Your task to perform on an android device: check data usage Image 0: 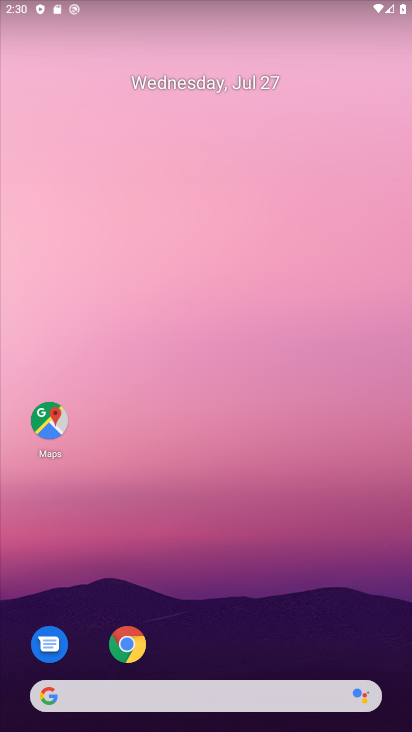
Step 0: drag from (233, 652) to (303, 0)
Your task to perform on an android device: check data usage Image 1: 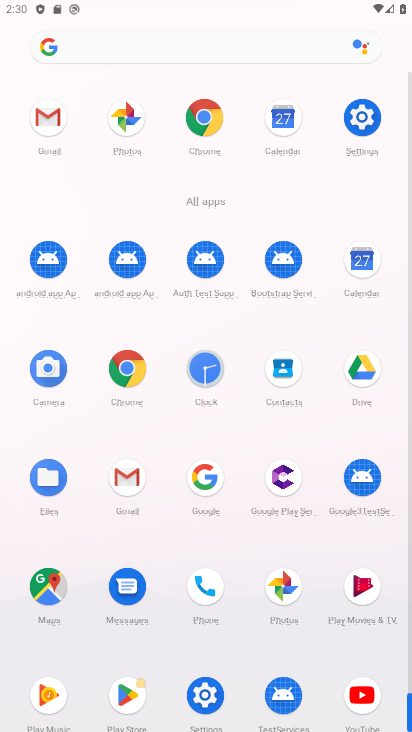
Step 1: click (206, 697)
Your task to perform on an android device: check data usage Image 2: 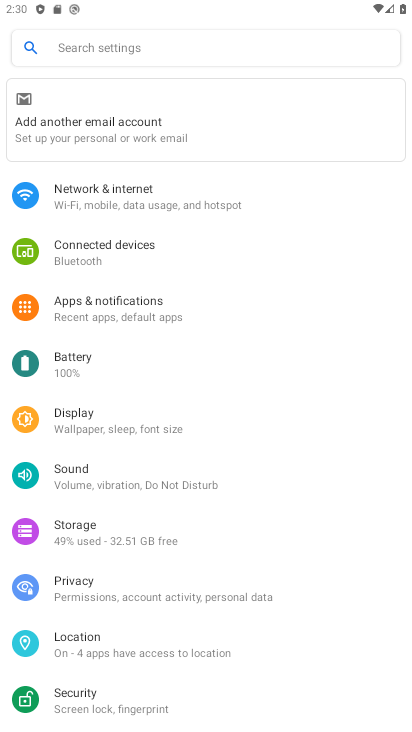
Step 2: click (115, 192)
Your task to perform on an android device: check data usage Image 3: 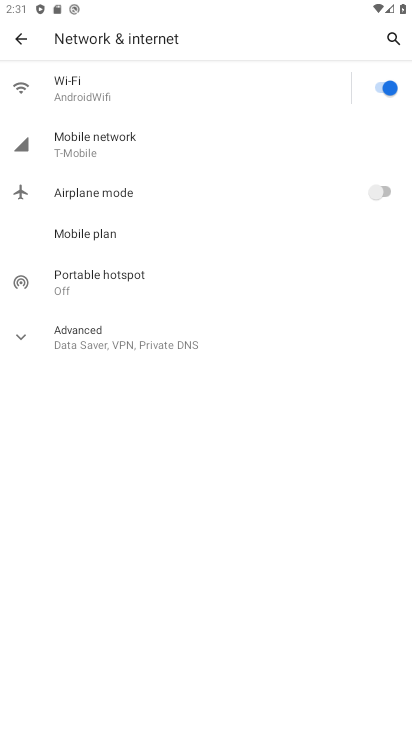
Step 3: click (114, 149)
Your task to perform on an android device: check data usage Image 4: 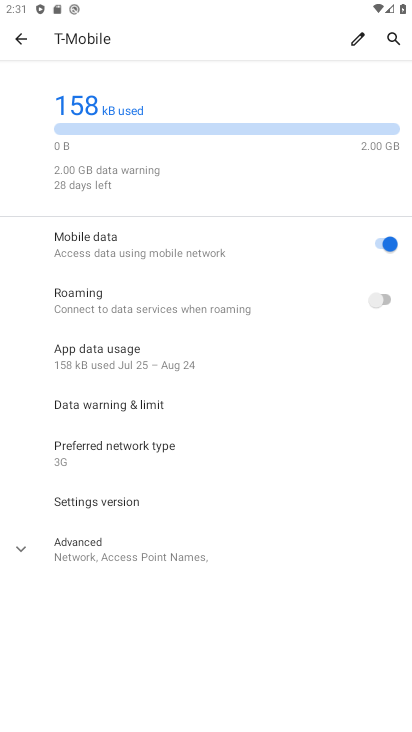
Step 4: click (127, 359)
Your task to perform on an android device: check data usage Image 5: 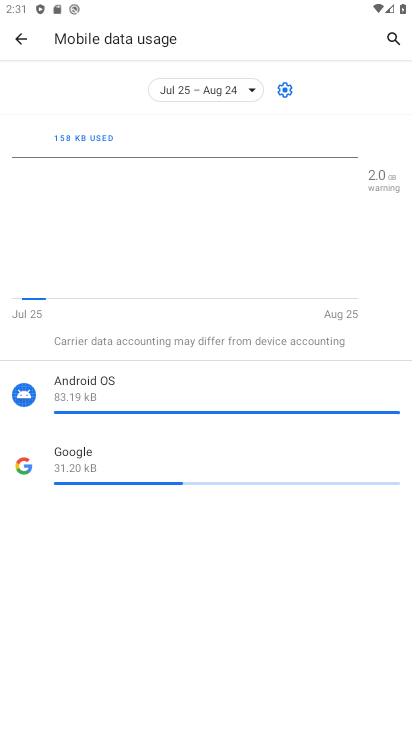
Step 5: task complete